Your task to perform on an android device: Go to battery settings Image 0: 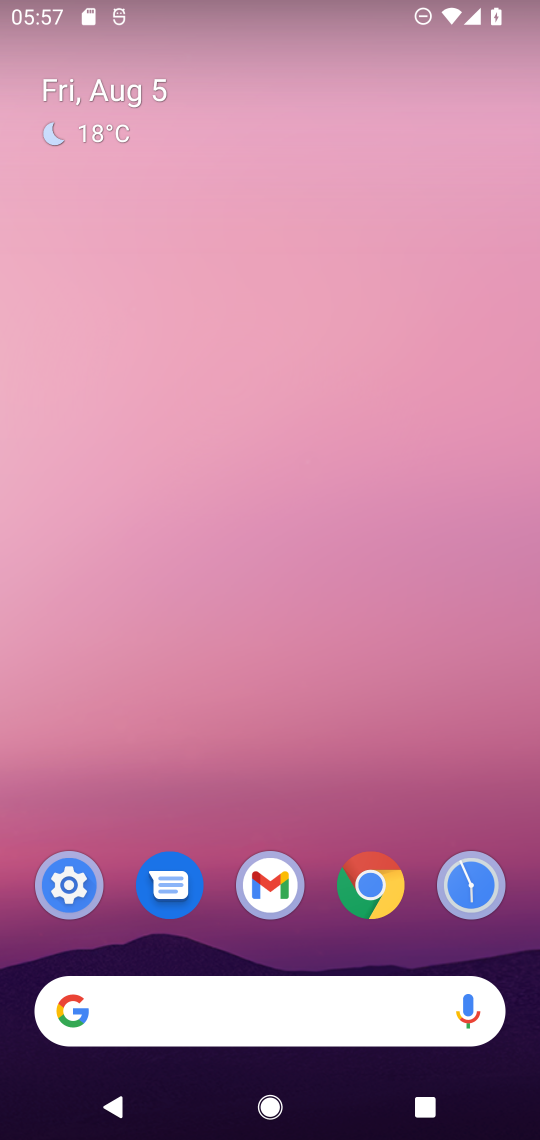
Step 0: drag from (313, 770) to (298, 153)
Your task to perform on an android device: Go to battery settings Image 1: 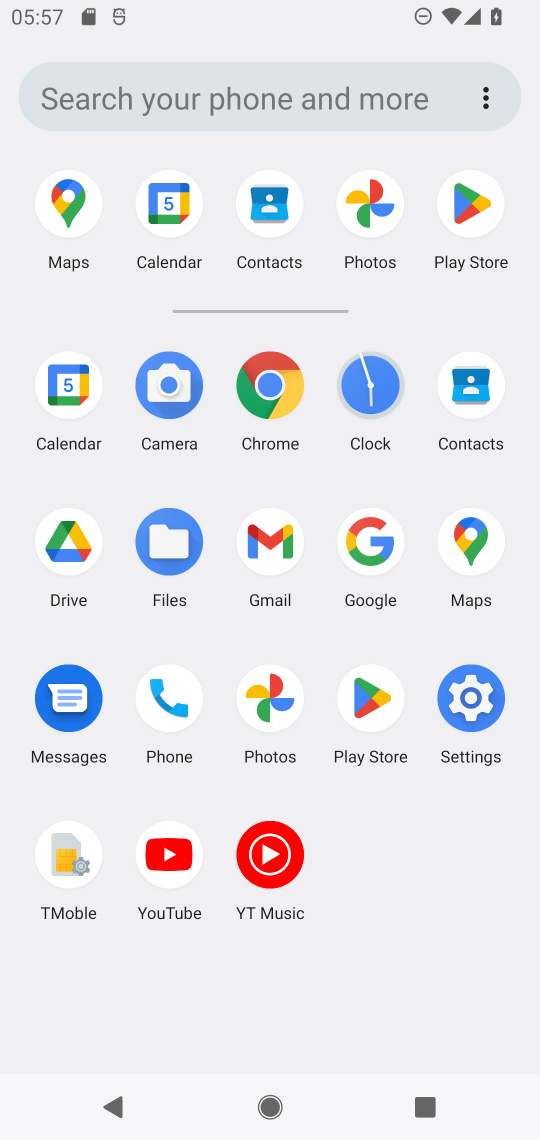
Step 1: click (470, 698)
Your task to perform on an android device: Go to battery settings Image 2: 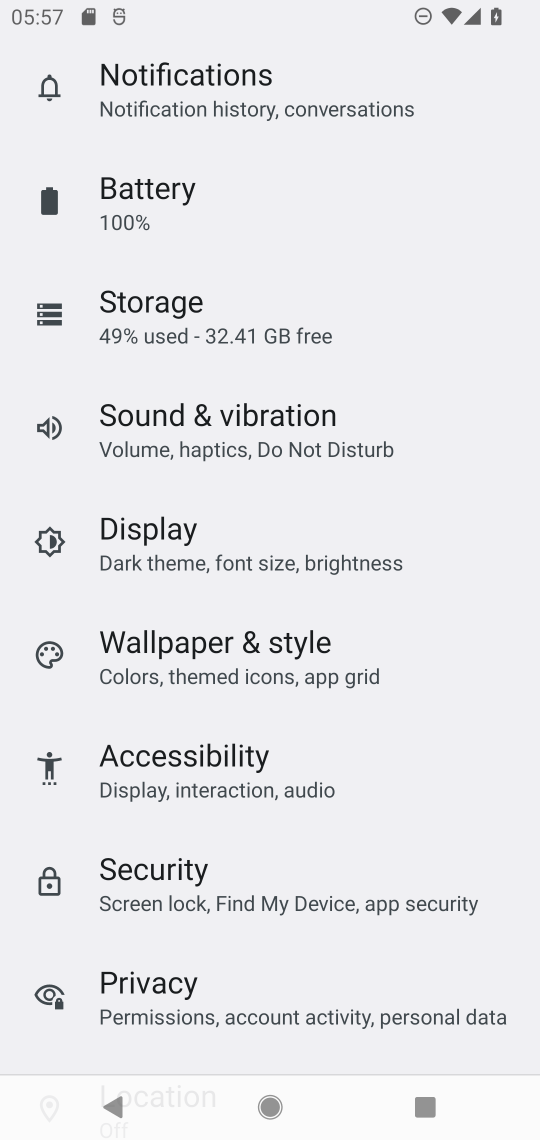
Step 2: click (150, 205)
Your task to perform on an android device: Go to battery settings Image 3: 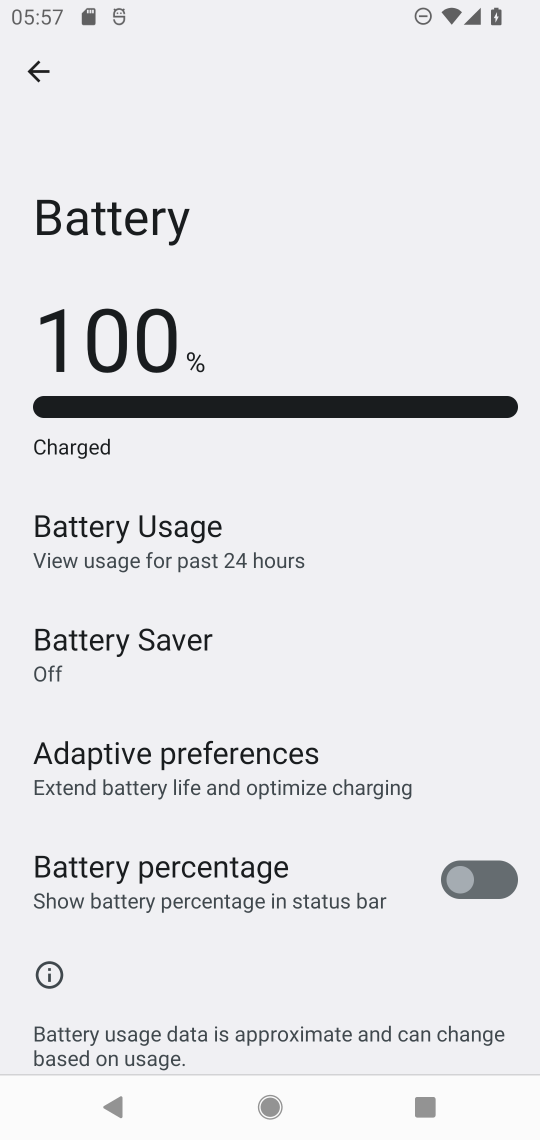
Step 3: task complete